Your task to perform on an android device: Is it going to rain this weekend? Image 0: 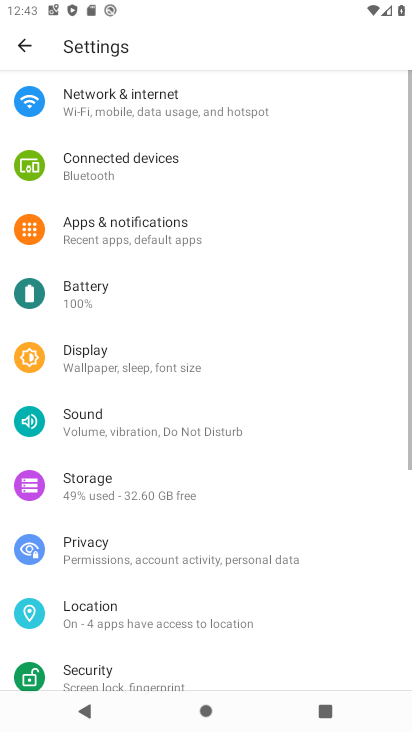
Step 0: press home button
Your task to perform on an android device: Is it going to rain this weekend? Image 1: 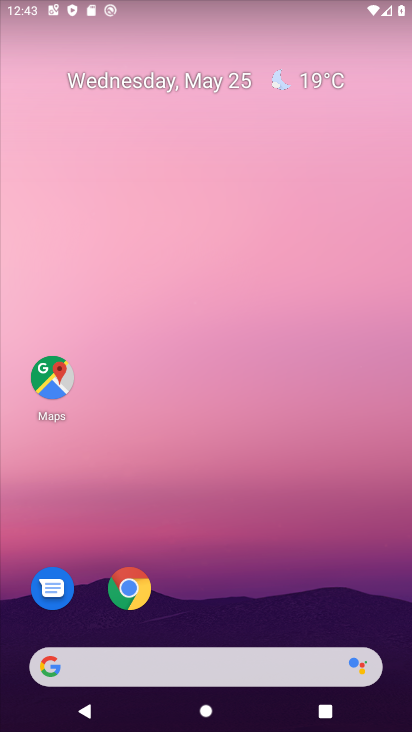
Step 1: click (132, 666)
Your task to perform on an android device: Is it going to rain this weekend? Image 2: 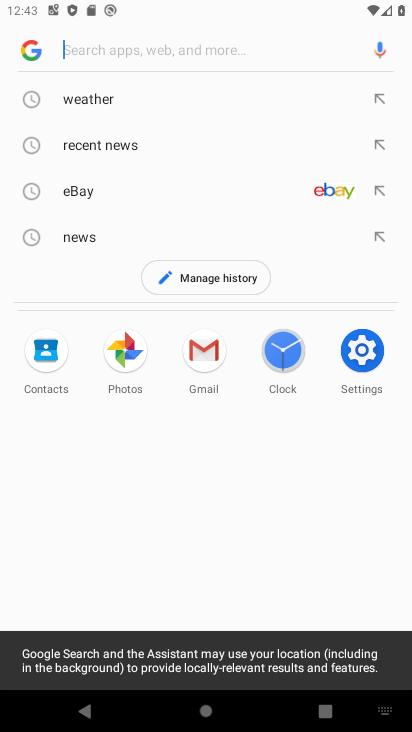
Step 2: click (115, 108)
Your task to perform on an android device: Is it going to rain this weekend? Image 3: 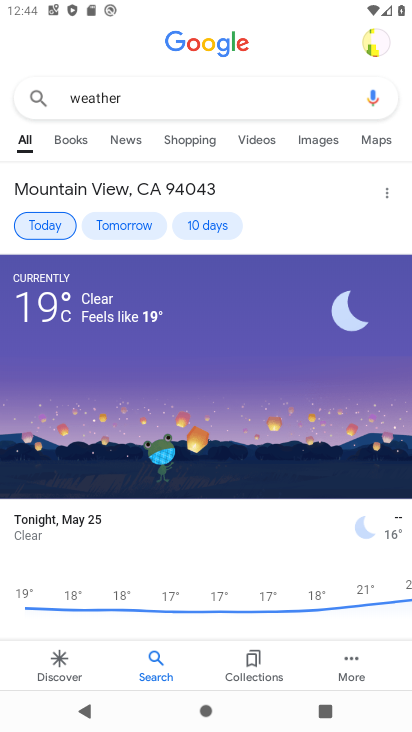
Step 3: click (206, 426)
Your task to perform on an android device: Is it going to rain this weekend? Image 4: 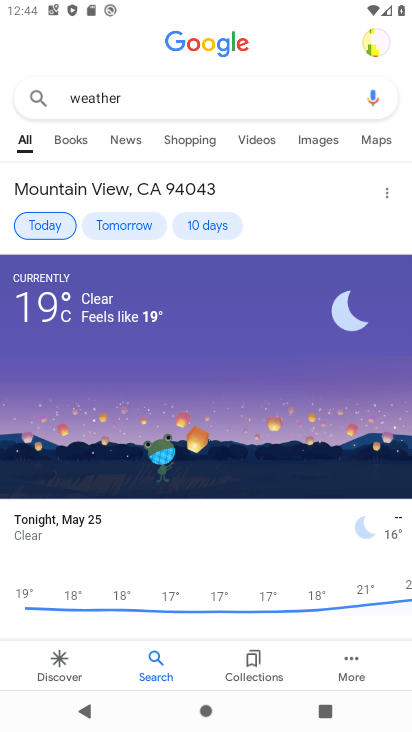
Step 4: click (207, 224)
Your task to perform on an android device: Is it going to rain this weekend? Image 5: 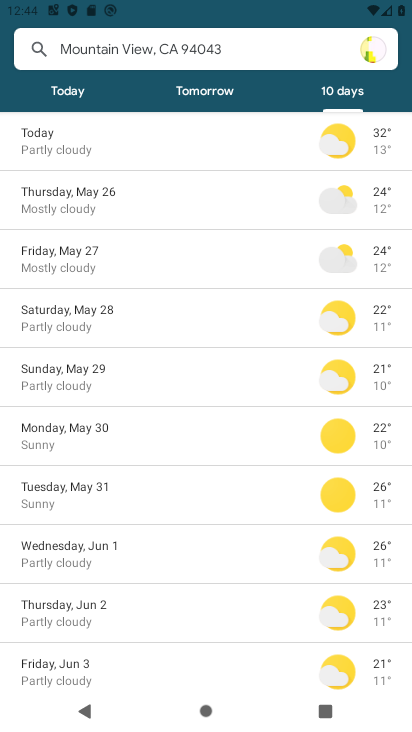
Step 5: task complete